Your task to perform on an android device: turn off location history Image 0: 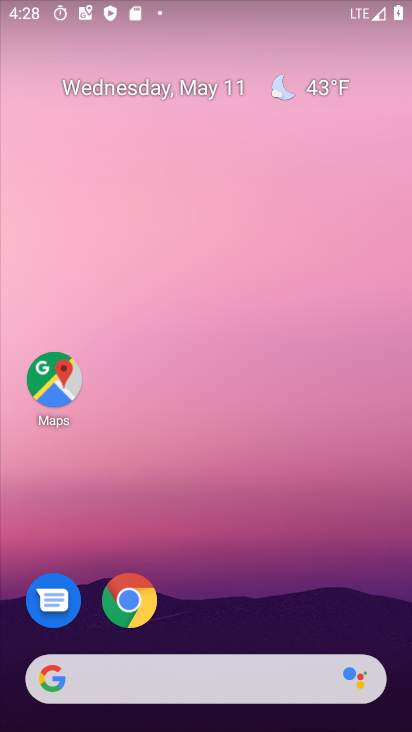
Step 0: click (54, 383)
Your task to perform on an android device: turn off location history Image 1: 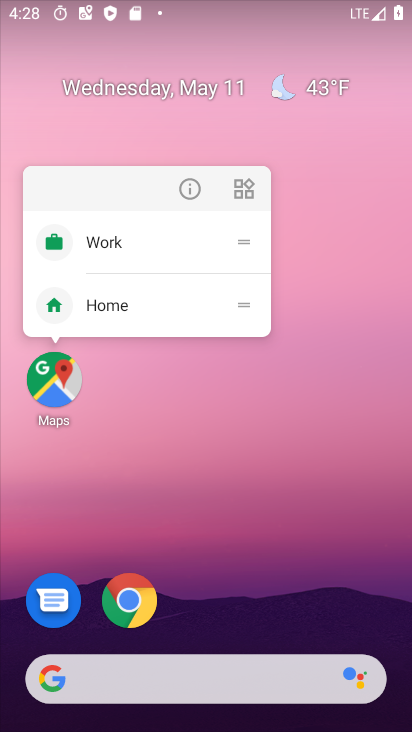
Step 1: click (55, 379)
Your task to perform on an android device: turn off location history Image 2: 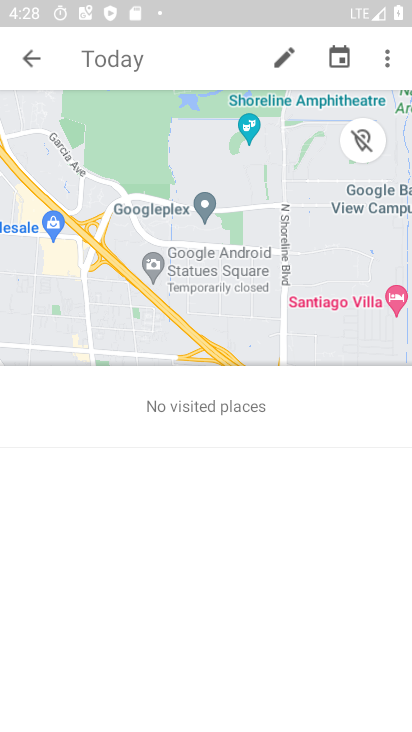
Step 2: click (390, 58)
Your task to perform on an android device: turn off location history Image 3: 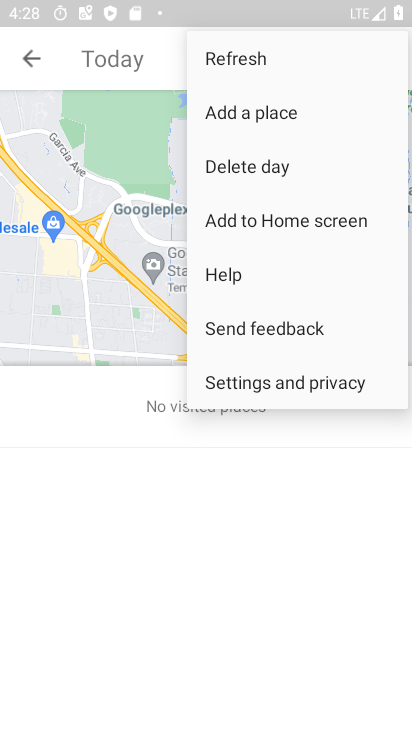
Step 3: click (244, 383)
Your task to perform on an android device: turn off location history Image 4: 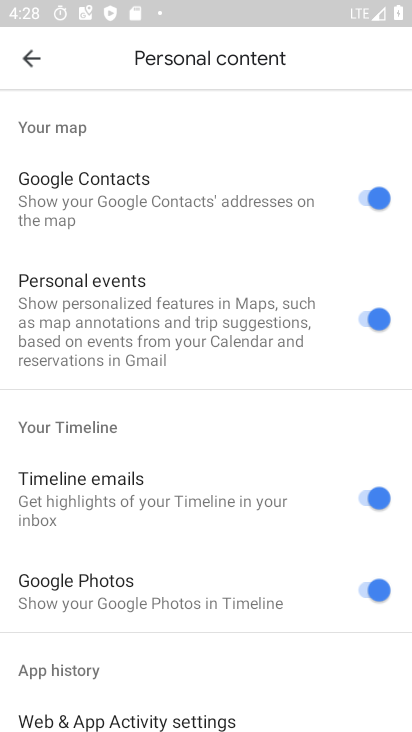
Step 4: drag from (105, 573) to (109, 195)
Your task to perform on an android device: turn off location history Image 5: 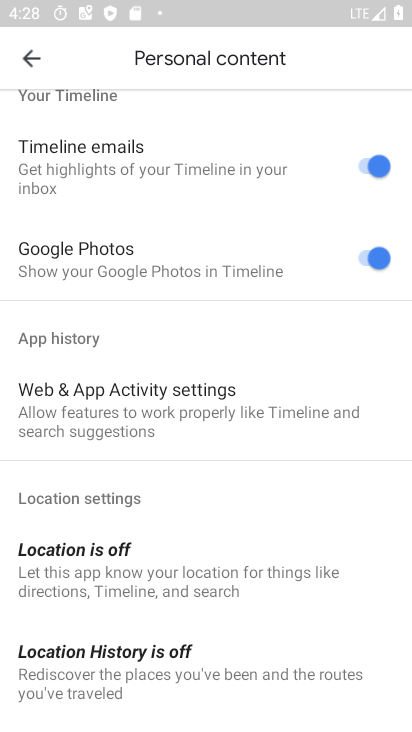
Step 5: click (99, 663)
Your task to perform on an android device: turn off location history Image 6: 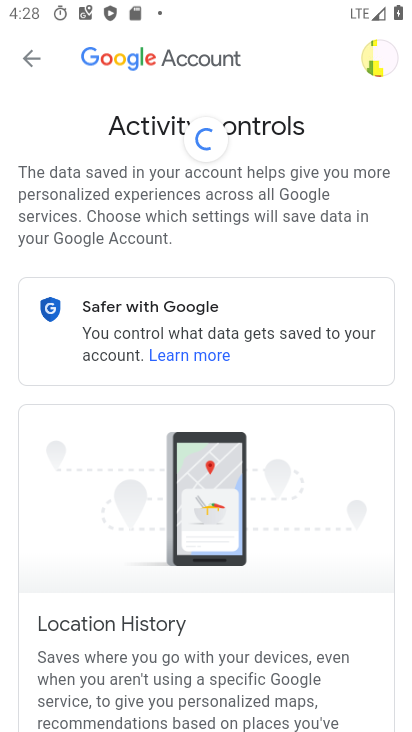
Step 6: drag from (272, 605) to (267, 263)
Your task to perform on an android device: turn off location history Image 7: 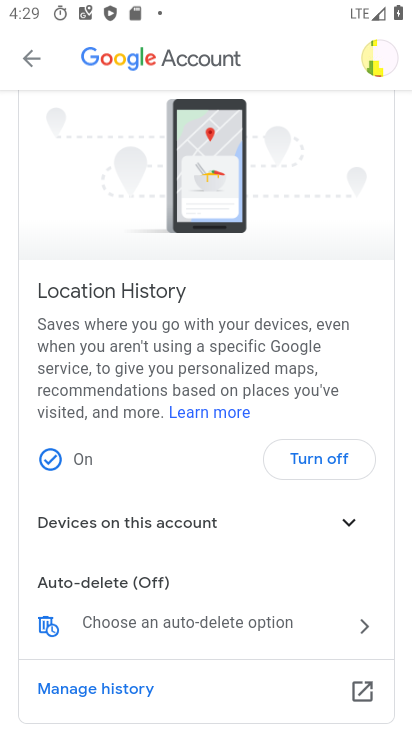
Step 7: click (320, 463)
Your task to perform on an android device: turn off location history Image 8: 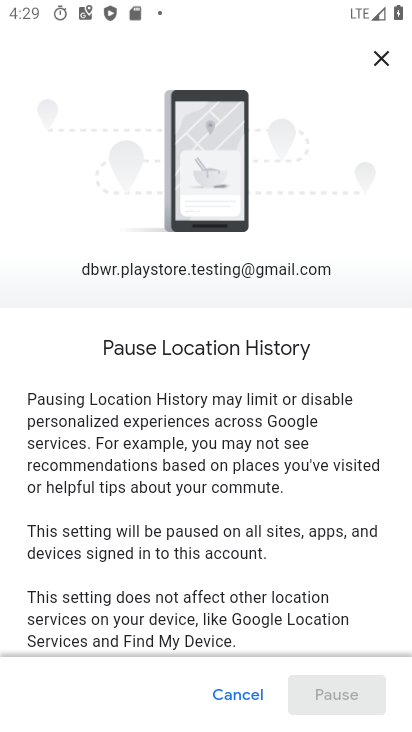
Step 8: drag from (225, 579) to (210, 158)
Your task to perform on an android device: turn off location history Image 9: 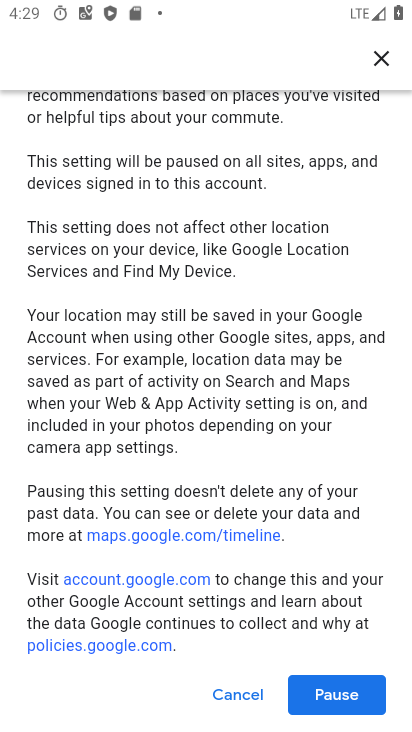
Step 9: click (346, 702)
Your task to perform on an android device: turn off location history Image 10: 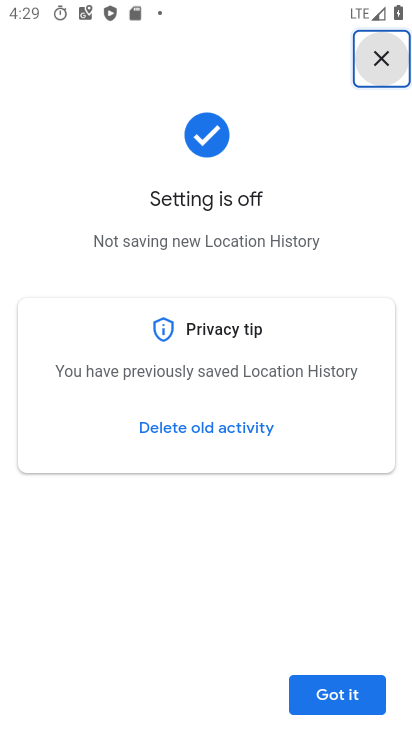
Step 10: click (339, 699)
Your task to perform on an android device: turn off location history Image 11: 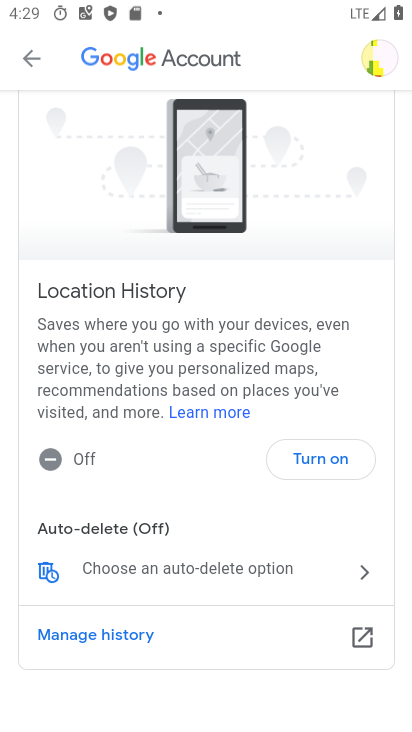
Step 11: task complete